Your task to perform on an android device: Go to Yahoo.com Image 0: 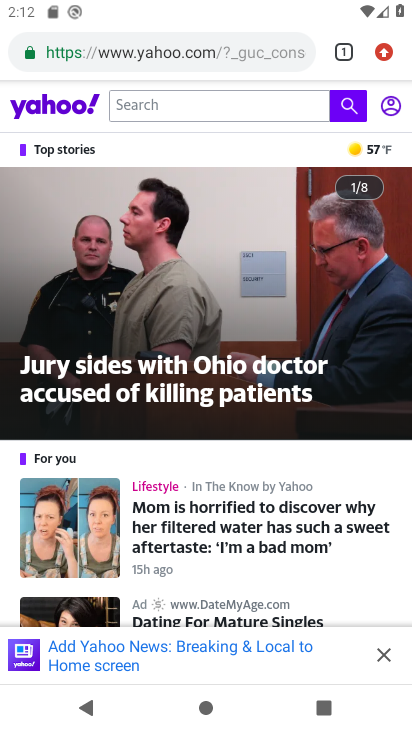
Step 0: task complete